Your task to perform on an android device: set an alarm Image 0: 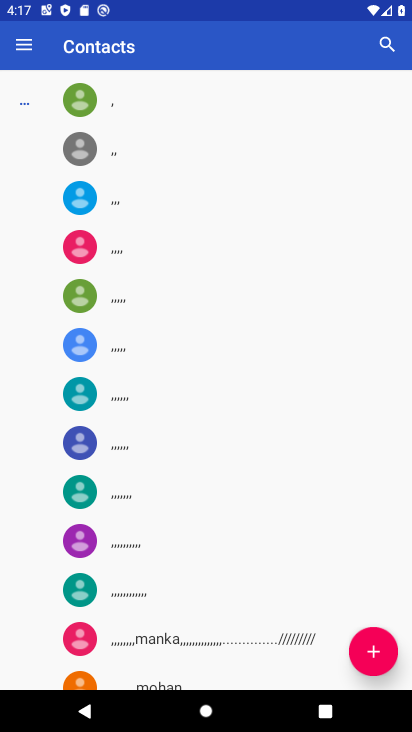
Step 0: press home button
Your task to perform on an android device: set an alarm Image 1: 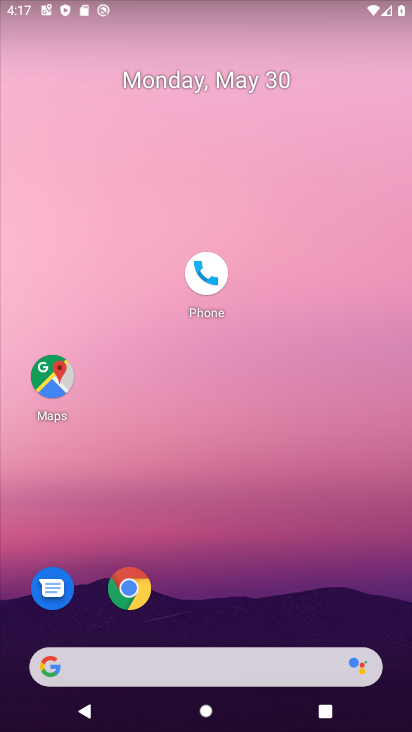
Step 1: drag from (253, 529) to (288, 65)
Your task to perform on an android device: set an alarm Image 2: 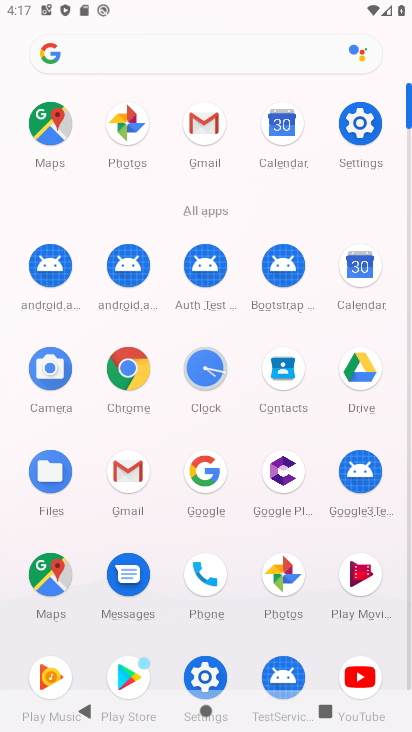
Step 2: click (212, 367)
Your task to perform on an android device: set an alarm Image 3: 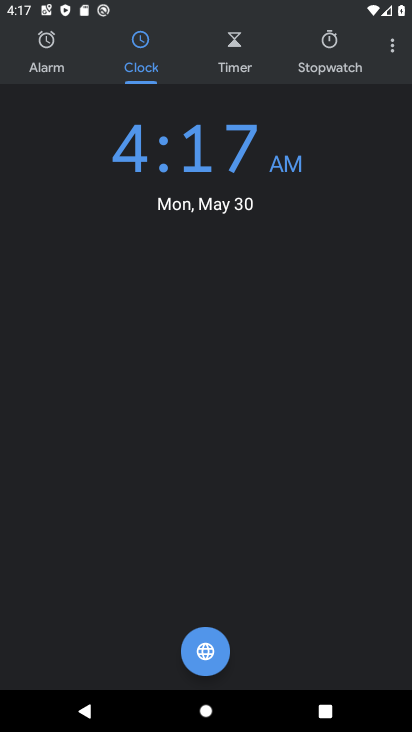
Step 3: click (52, 51)
Your task to perform on an android device: set an alarm Image 4: 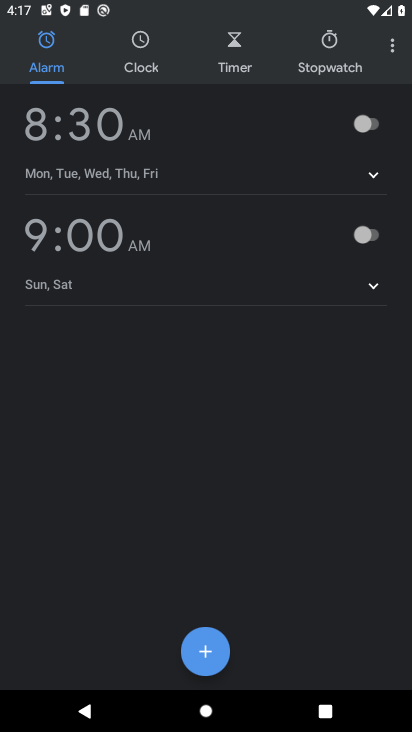
Step 4: click (178, 167)
Your task to perform on an android device: set an alarm Image 5: 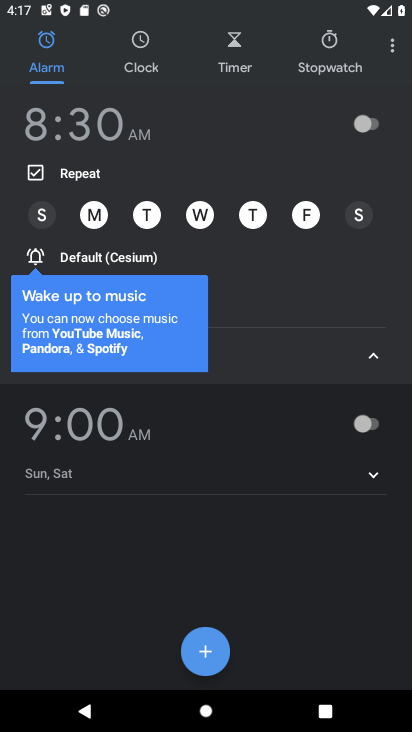
Step 5: click (370, 419)
Your task to perform on an android device: set an alarm Image 6: 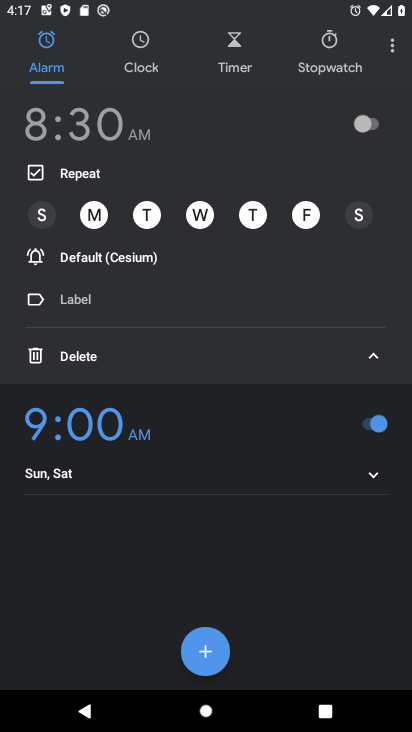
Step 6: task complete